Your task to perform on an android device: Open Chrome and go to the settings page Image 0: 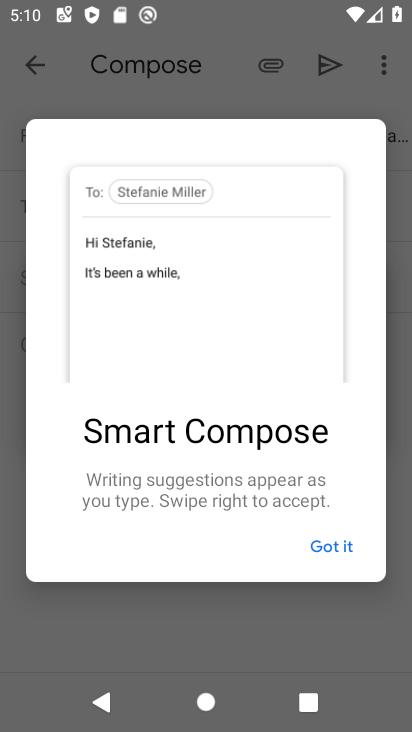
Step 0: press home button
Your task to perform on an android device: Open Chrome and go to the settings page Image 1: 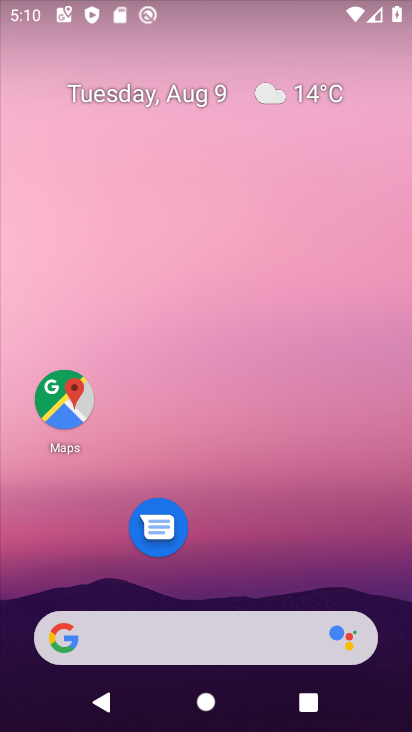
Step 1: drag from (257, 465) to (238, 109)
Your task to perform on an android device: Open Chrome and go to the settings page Image 2: 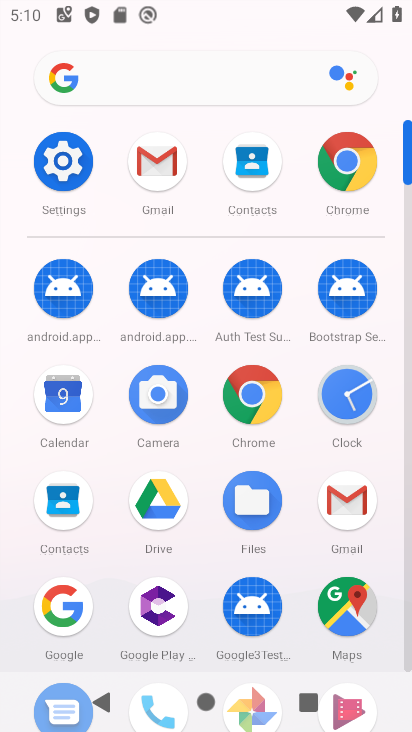
Step 2: click (345, 185)
Your task to perform on an android device: Open Chrome and go to the settings page Image 3: 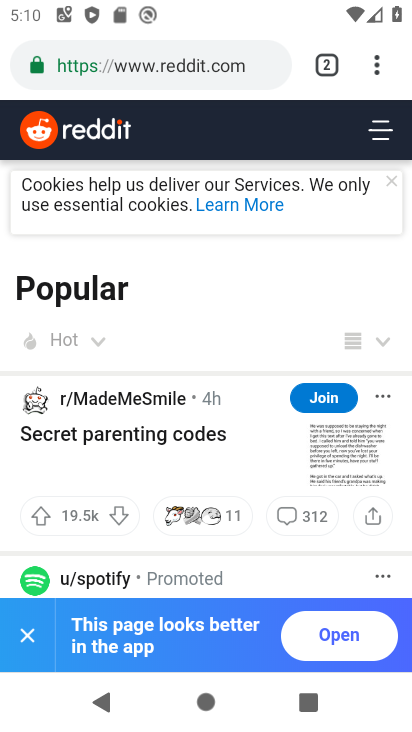
Step 3: click (388, 54)
Your task to perform on an android device: Open Chrome and go to the settings page Image 4: 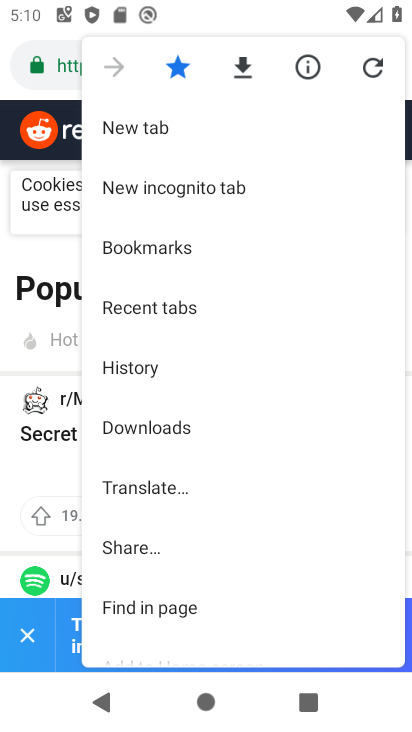
Step 4: drag from (171, 591) to (199, 302)
Your task to perform on an android device: Open Chrome and go to the settings page Image 5: 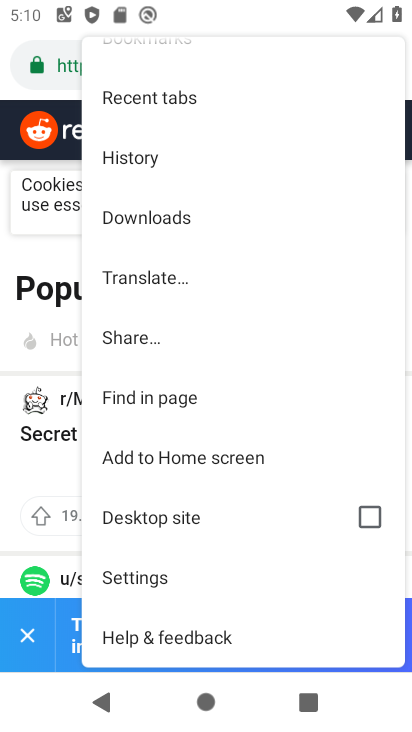
Step 5: click (162, 590)
Your task to perform on an android device: Open Chrome and go to the settings page Image 6: 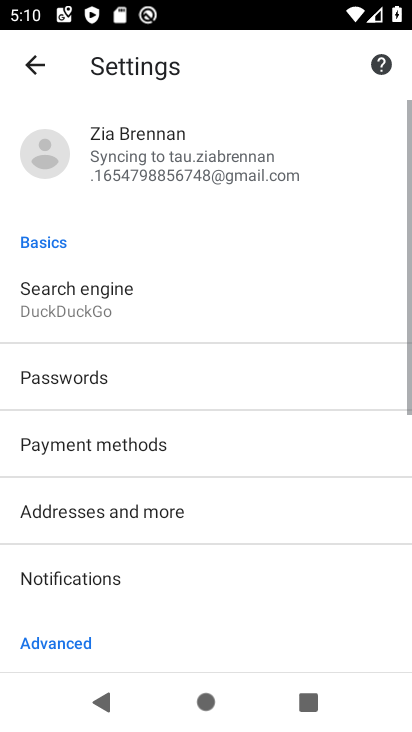
Step 6: click (162, 590)
Your task to perform on an android device: Open Chrome and go to the settings page Image 7: 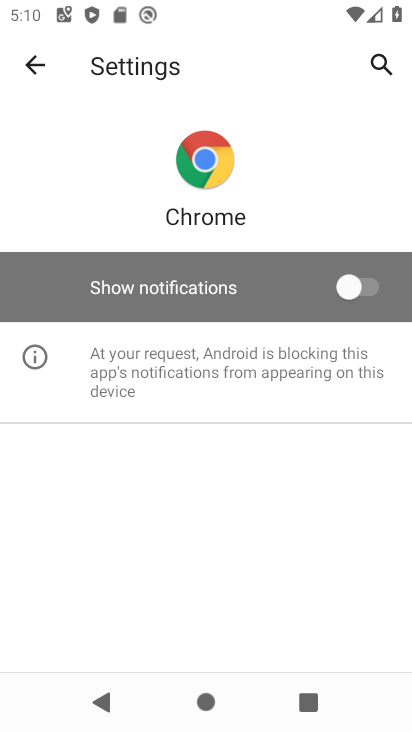
Step 7: task complete